Your task to perform on an android device: change the upload size in google photos Image 0: 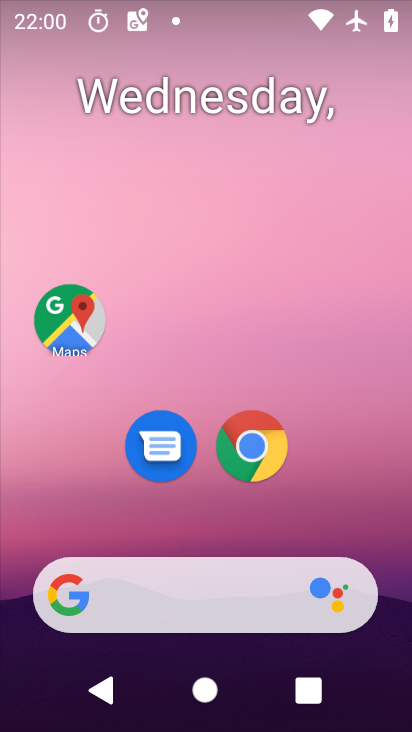
Step 0: press home button
Your task to perform on an android device: change the upload size in google photos Image 1: 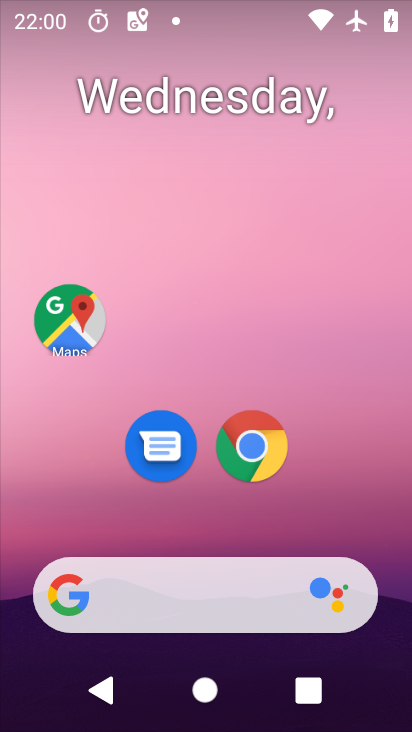
Step 1: drag from (213, 600) to (363, 141)
Your task to perform on an android device: change the upload size in google photos Image 2: 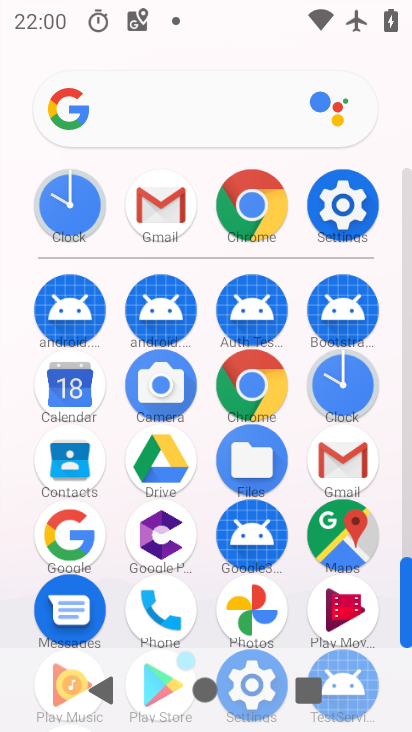
Step 2: click (261, 606)
Your task to perform on an android device: change the upload size in google photos Image 3: 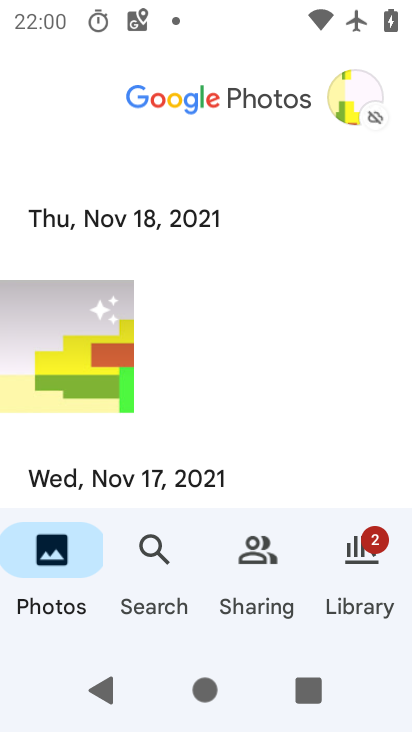
Step 3: click (350, 100)
Your task to perform on an android device: change the upload size in google photos Image 4: 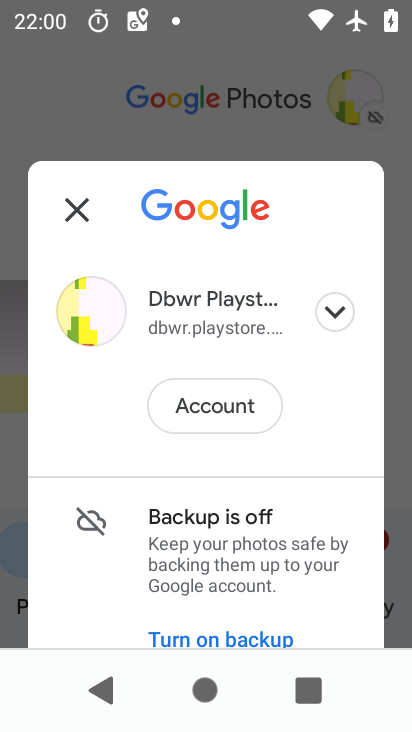
Step 4: drag from (208, 592) to (358, 199)
Your task to perform on an android device: change the upload size in google photos Image 5: 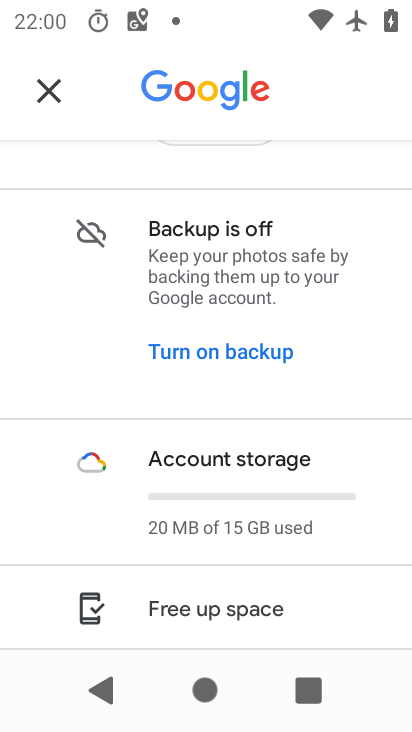
Step 5: drag from (217, 602) to (359, 177)
Your task to perform on an android device: change the upload size in google photos Image 6: 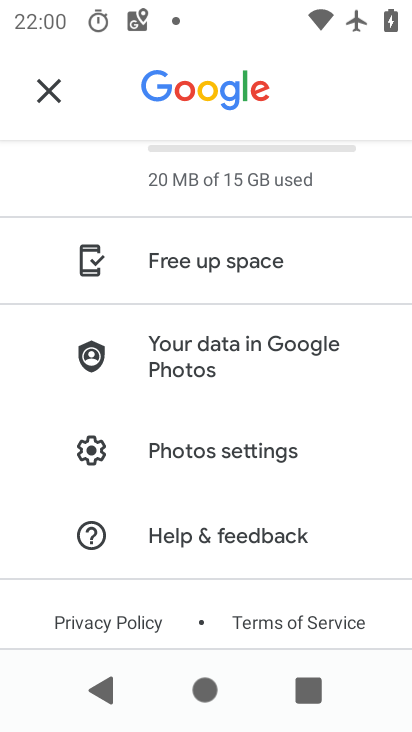
Step 6: click (249, 449)
Your task to perform on an android device: change the upload size in google photos Image 7: 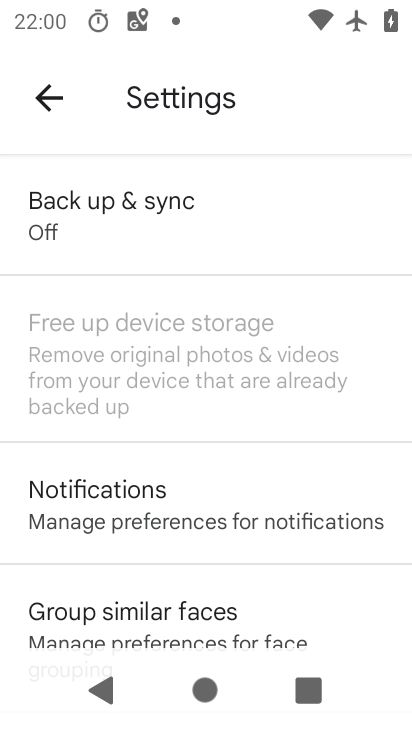
Step 7: click (230, 238)
Your task to perform on an android device: change the upload size in google photos Image 8: 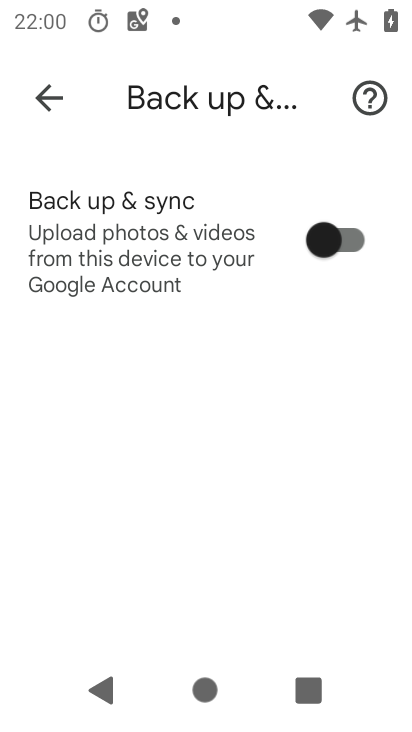
Step 8: click (355, 241)
Your task to perform on an android device: change the upload size in google photos Image 9: 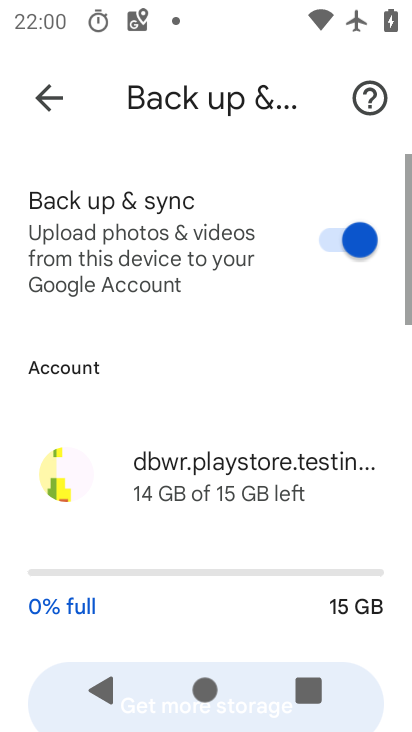
Step 9: drag from (273, 345) to (364, 20)
Your task to perform on an android device: change the upload size in google photos Image 10: 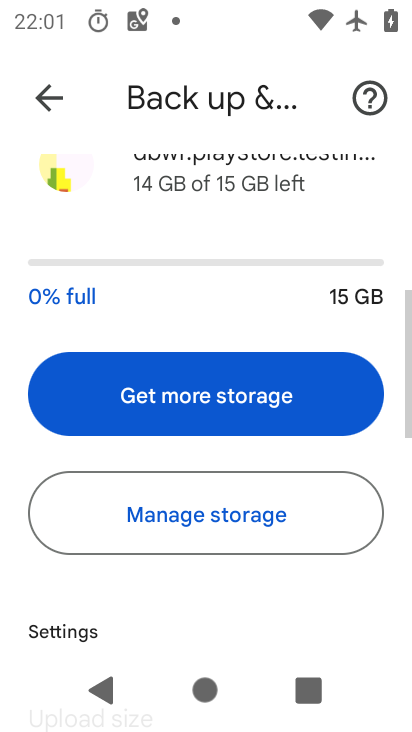
Step 10: drag from (198, 598) to (380, 106)
Your task to perform on an android device: change the upload size in google photos Image 11: 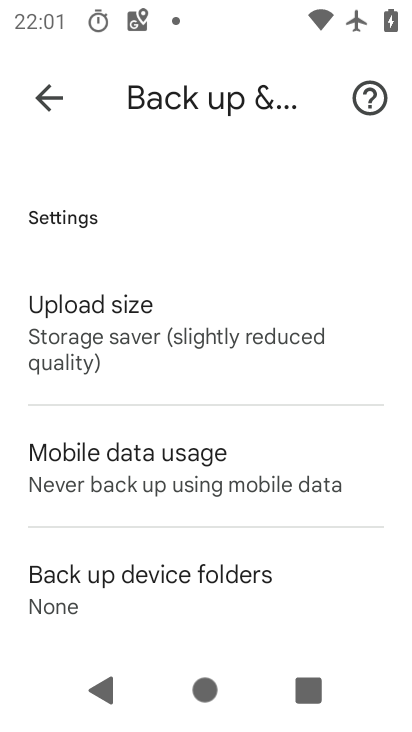
Step 11: click (149, 340)
Your task to perform on an android device: change the upload size in google photos Image 12: 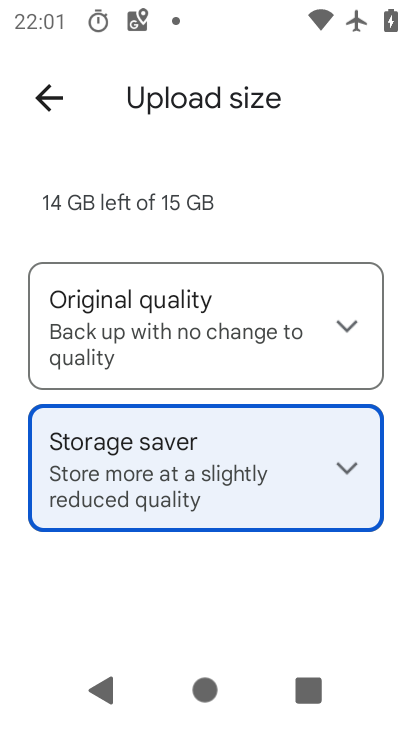
Step 12: click (339, 316)
Your task to perform on an android device: change the upload size in google photos Image 13: 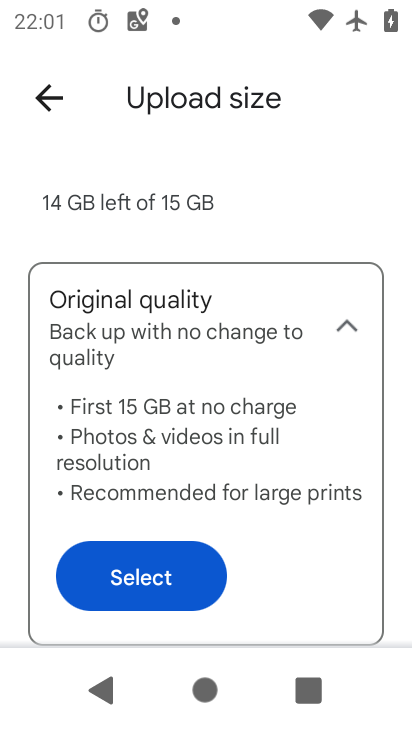
Step 13: click (173, 571)
Your task to perform on an android device: change the upload size in google photos Image 14: 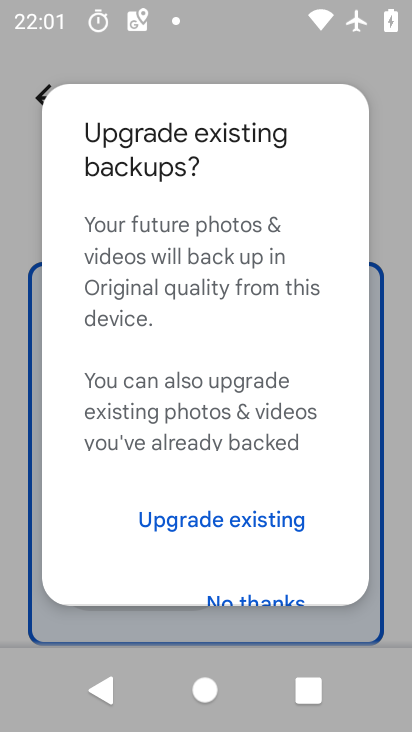
Step 14: click (228, 602)
Your task to perform on an android device: change the upload size in google photos Image 15: 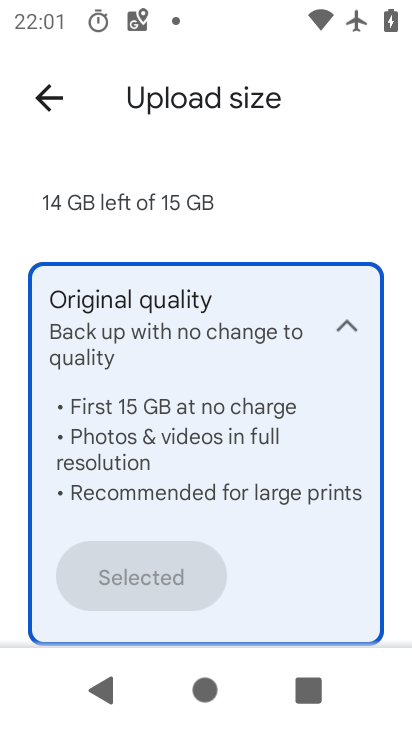
Step 15: task complete